Your task to perform on an android device: Go to Google maps Image 0: 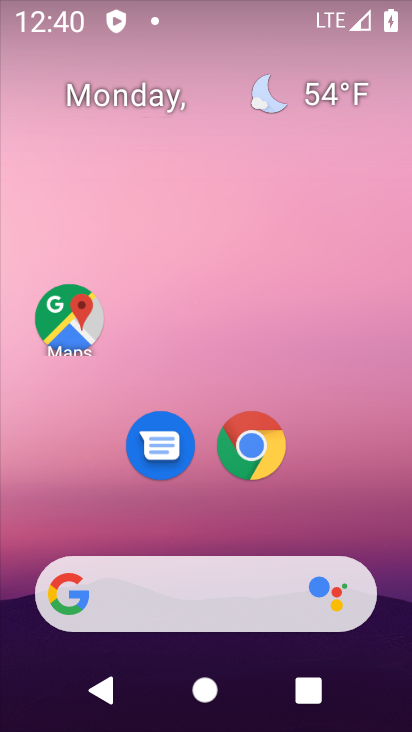
Step 0: drag from (375, 497) to (375, 95)
Your task to perform on an android device: Go to Google maps Image 1: 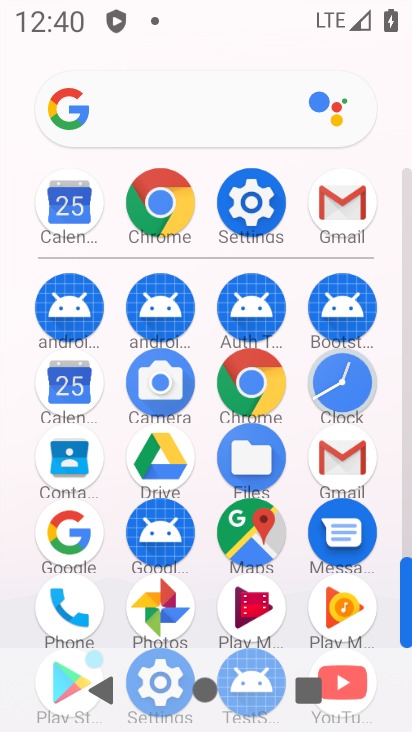
Step 1: click (244, 531)
Your task to perform on an android device: Go to Google maps Image 2: 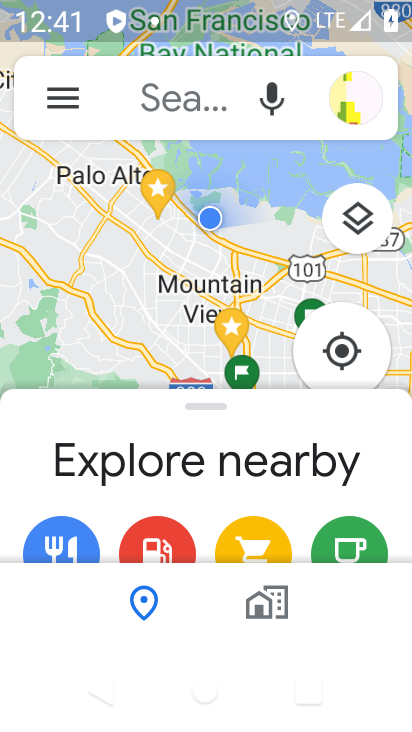
Step 2: task complete